Your task to perform on an android device: What's the weather going to be tomorrow? Image 0: 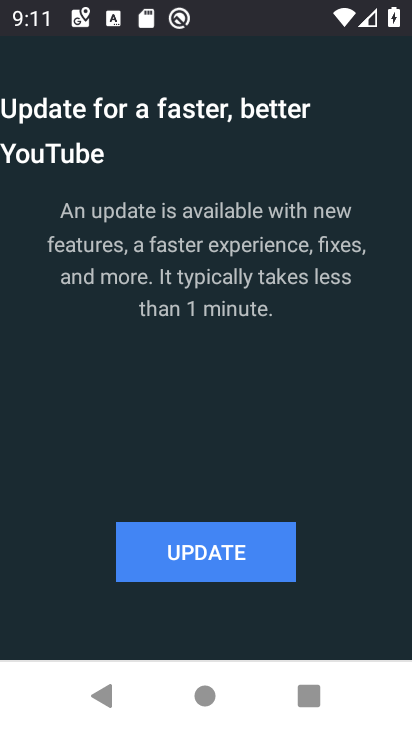
Step 0: press home button
Your task to perform on an android device: What's the weather going to be tomorrow? Image 1: 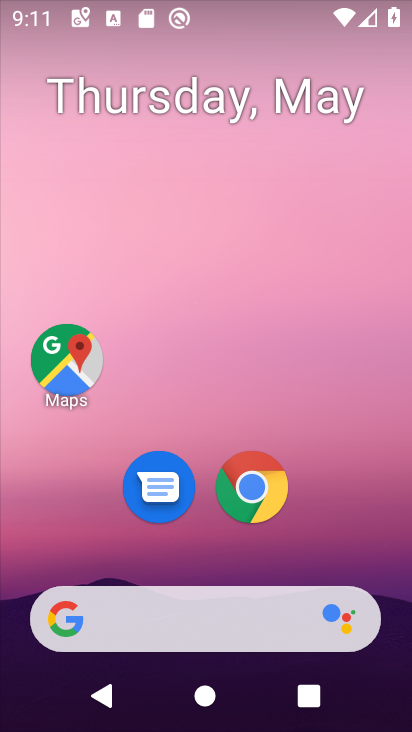
Step 1: click (215, 626)
Your task to perform on an android device: What's the weather going to be tomorrow? Image 2: 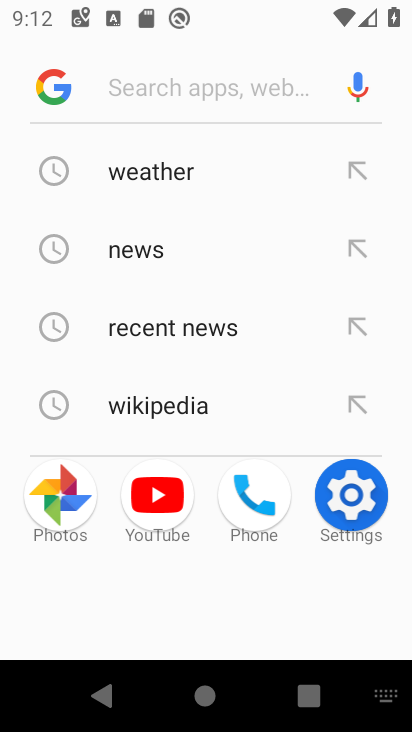
Step 2: click (180, 159)
Your task to perform on an android device: What's the weather going to be tomorrow? Image 3: 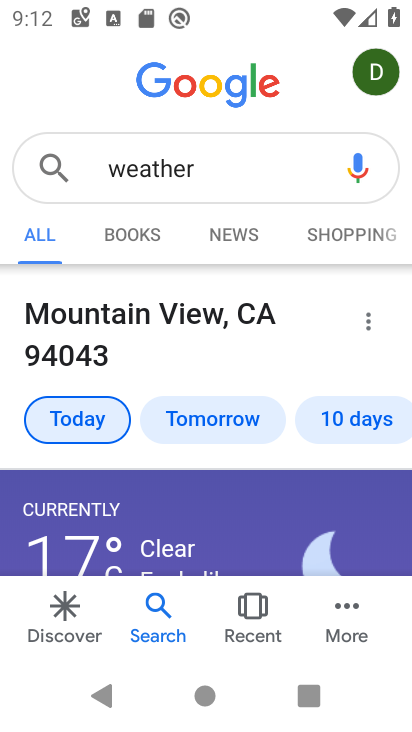
Step 3: task complete